Your task to perform on an android device: turn on priority inbox in the gmail app Image 0: 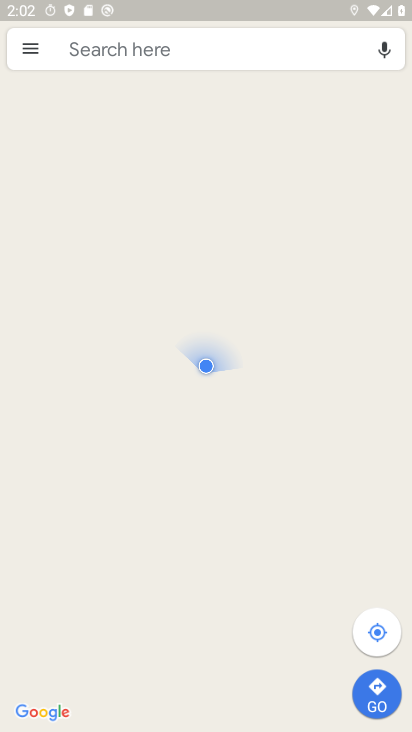
Step 0: press home button
Your task to perform on an android device: turn on priority inbox in the gmail app Image 1: 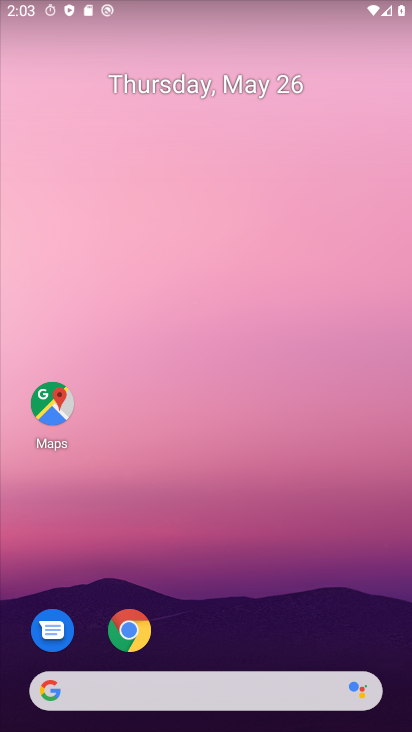
Step 1: drag from (287, 587) to (290, 166)
Your task to perform on an android device: turn on priority inbox in the gmail app Image 2: 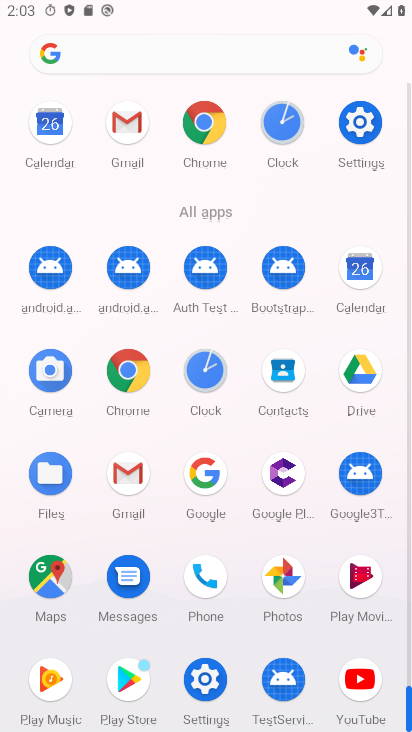
Step 2: click (123, 122)
Your task to perform on an android device: turn on priority inbox in the gmail app Image 3: 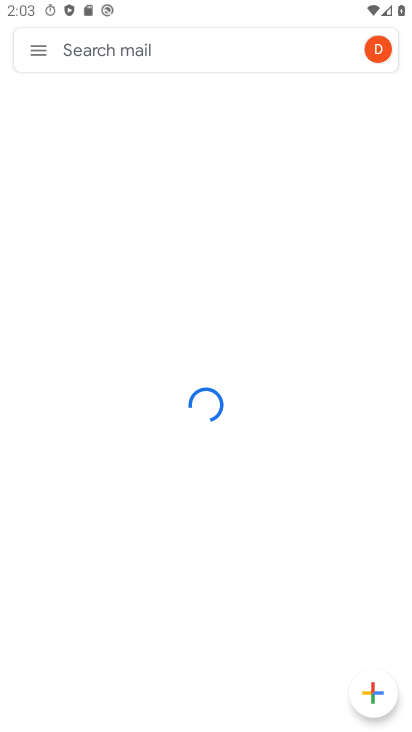
Step 3: click (34, 45)
Your task to perform on an android device: turn on priority inbox in the gmail app Image 4: 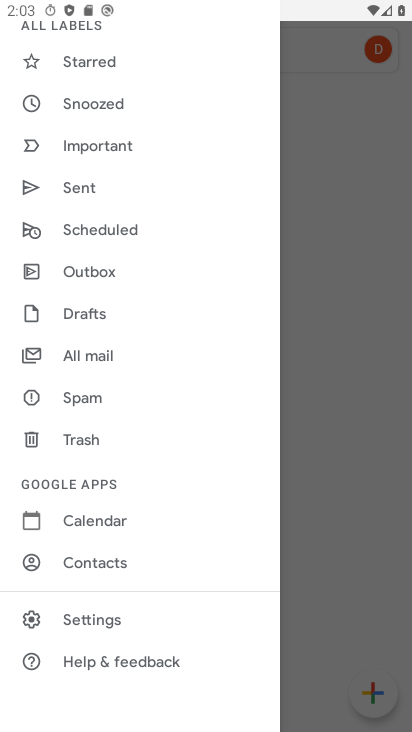
Step 4: drag from (150, 217) to (132, 590)
Your task to perform on an android device: turn on priority inbox in the gmail app Image 5: 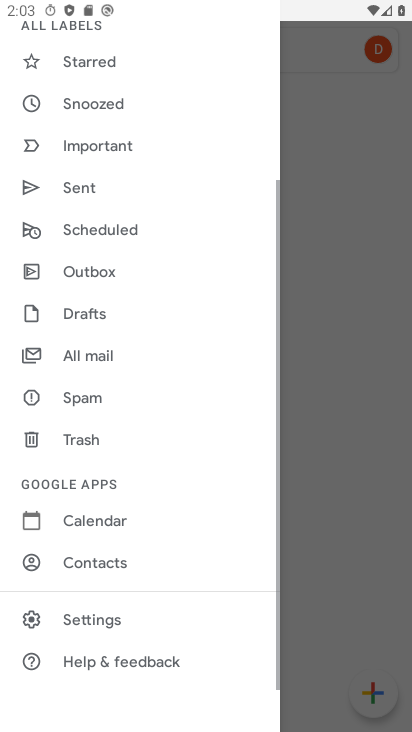
Step 5: drag from (138, 157) to (103, 606)
Your task to perform on an android device: turn on priority inbox in the gmail app Image 6: 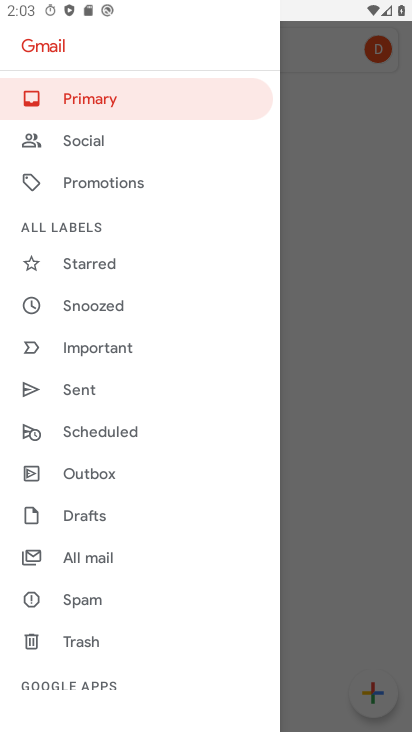
Step 6: click (143, 98)
Your task to perform on an android device: turn on priority inbox in the gmail app Image 7: 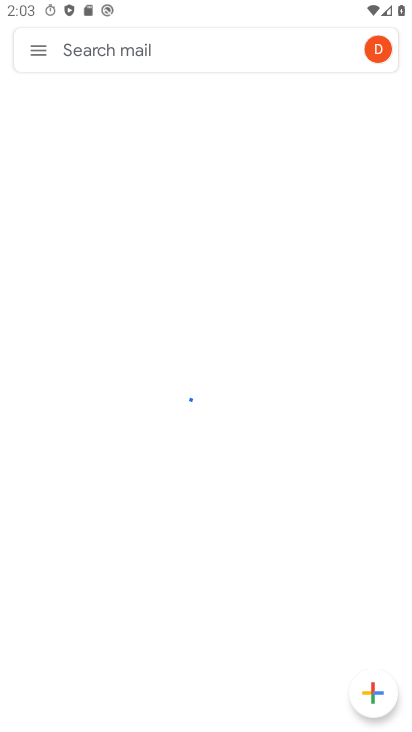
Step 7: click (55, 46)
Your task to perform on an android device: turn on priority inbox in the gmail app Image 8: 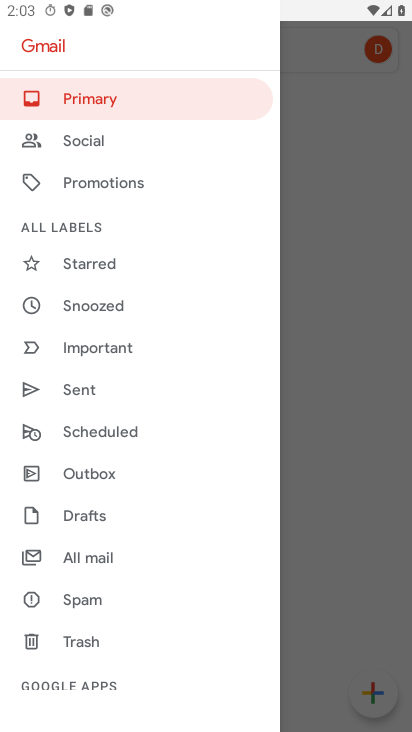
Step 8: drag from (142, 583) to (171, 178)
Your task to perform on an android device: turn on priority inbox in the gmail app Image 9: 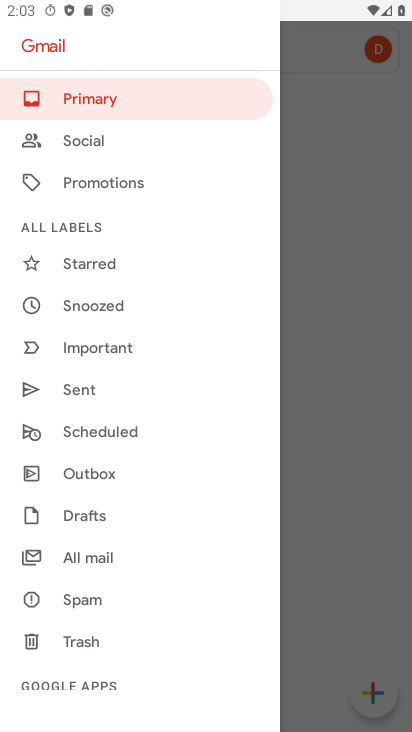
Step 9: drag from (180, 647) to (221, 186)
Your task to perform on an android device: turn on priority inbox in the gmail app Image 10: 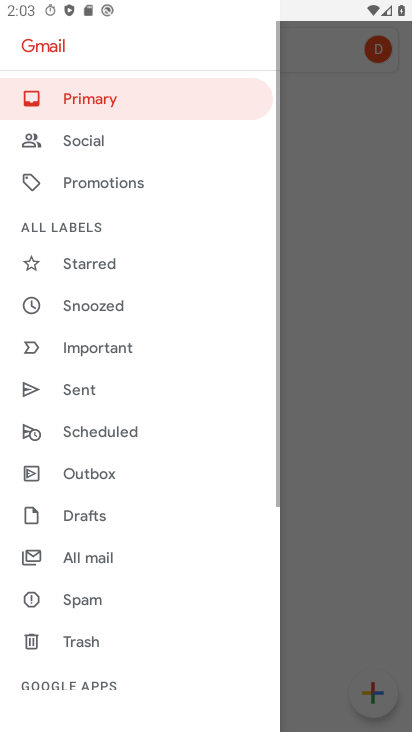
Step 10: drag from (71, 684) to (130, 227)
Your task to perform on an android device: turn on priority inbox in the gmail app Image 11: 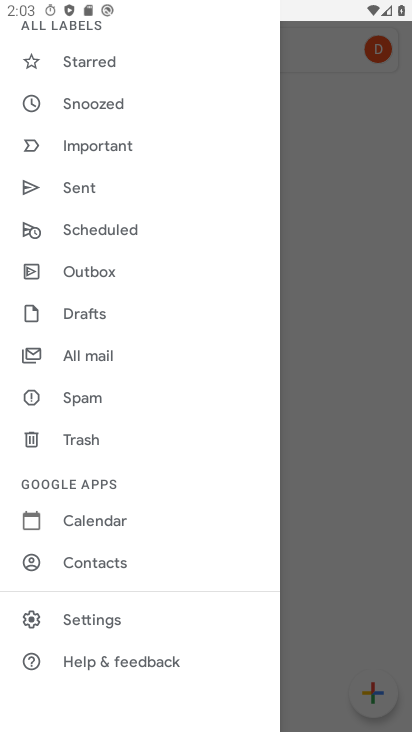
Step 11: click (105, 609)
Your task to perform on an android device: turn on priority inbox in the gmail app Image 12: 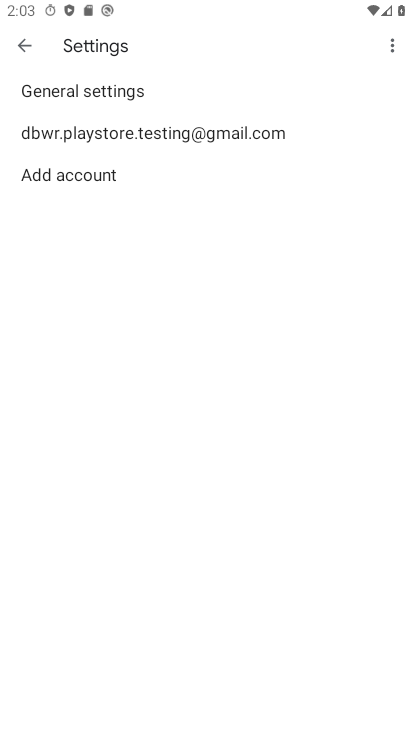
Step 12: click (112, 85)
Your task to perform on an android device: turn on priority inbox in the gmail app Image 13: 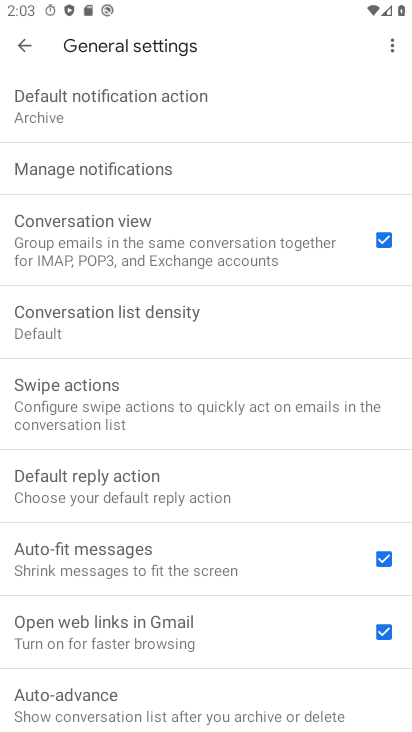
Step 13: task complete